Your task to perform on an android device: Open Google Maps and go to "Timeline" Image 0: 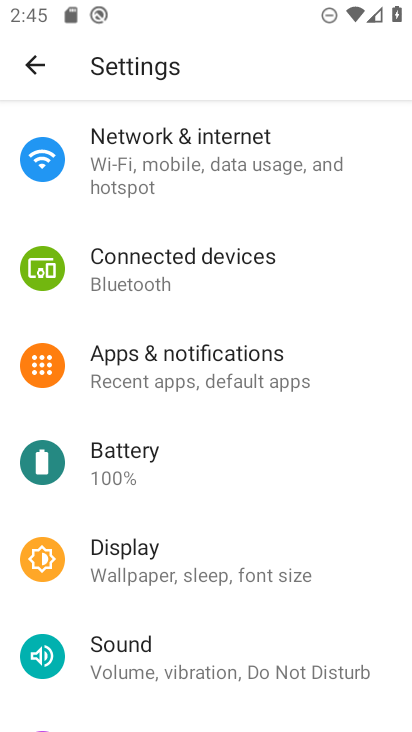
Step 0: press home button
Your task to perform on an android device: Open Google Maps and go to "Timeline" Image 1: 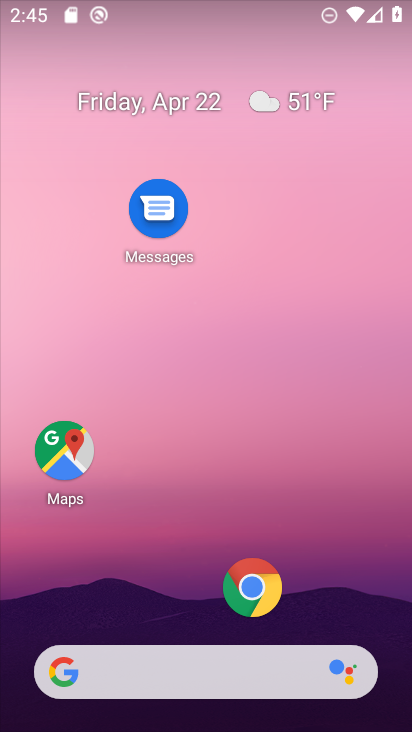
Step 1: click (75, 441)
Your task to perform on an android device: Open Google Maps and go to "Timeline" Image 2: 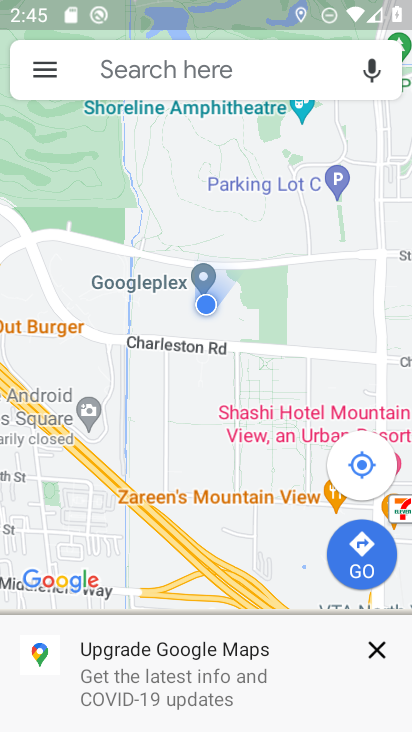
Step 2: click (50, 68)
Your task to perform on an android device: Open Google Maps and go to "Timeline" Image 3: 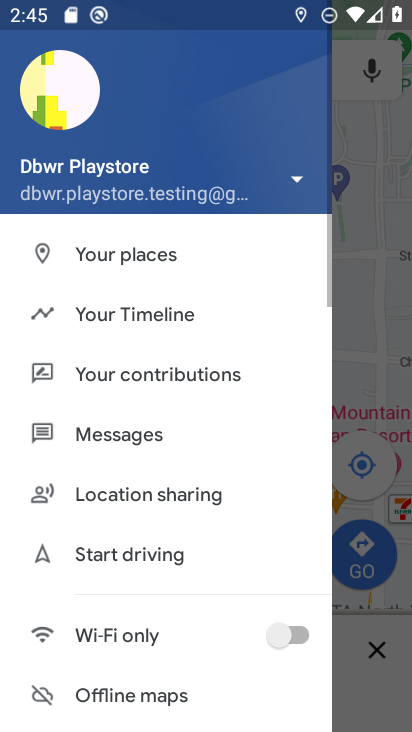
Step 3: click (123, 303)
Your task to perform on an android device: Open Google Maps and go to "Timeline" Image 4: 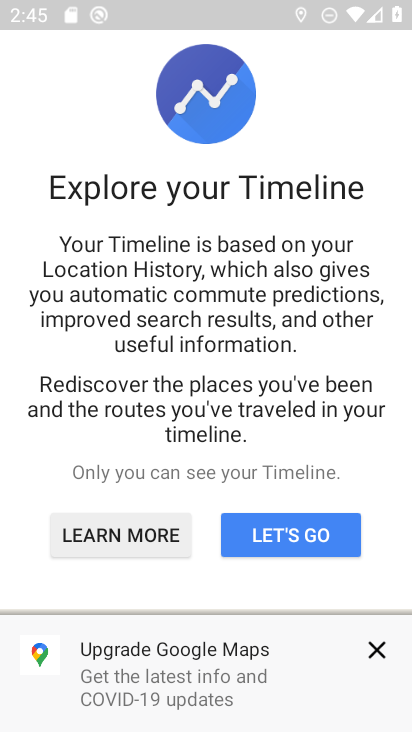
Step 4: click (275, 530)
Your task to perform on an android device: Open Google Maps and go to "Timeline" Image 5: 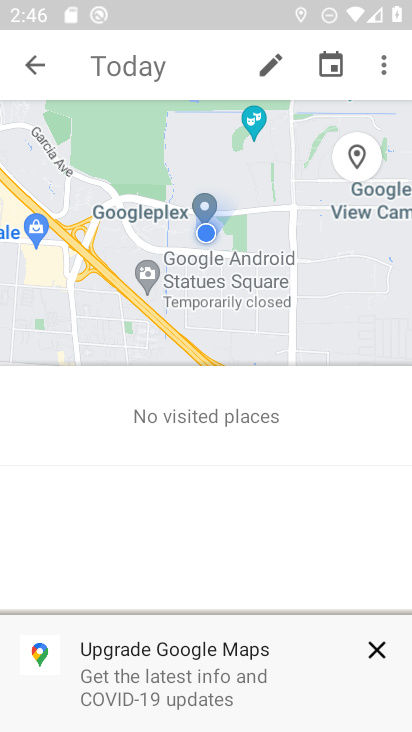
Step 5: task complete